Your task to perform on an android device: Open eBay Image 0: 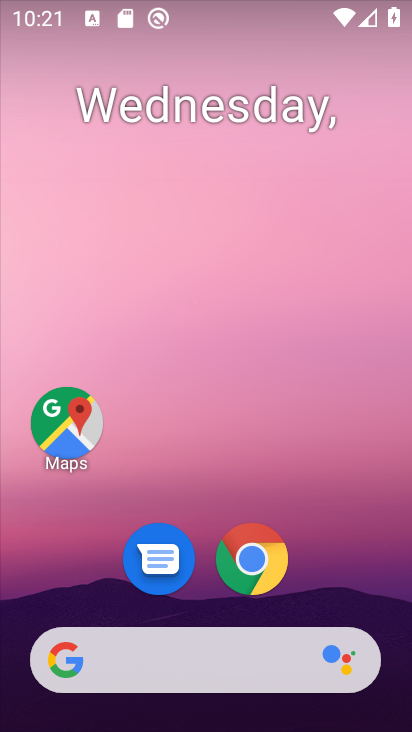
Step 0: drag from (200, 664) to (303, 42)
Your task to perform on an android device: Open eBay Image 1: 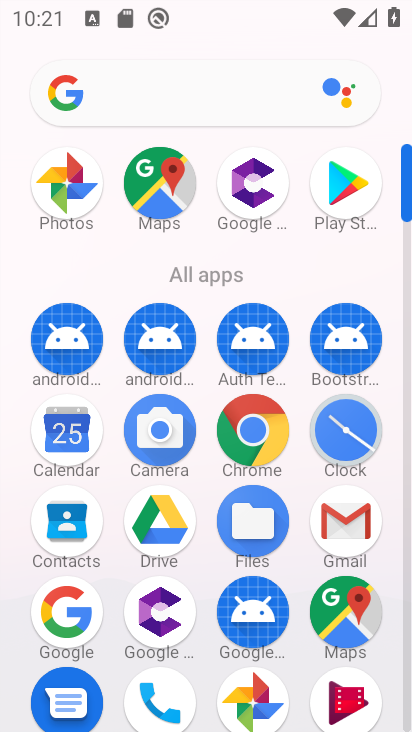
Step 1: click (259, 450)
Your task to perform on an android device: Open eBay Image 2: 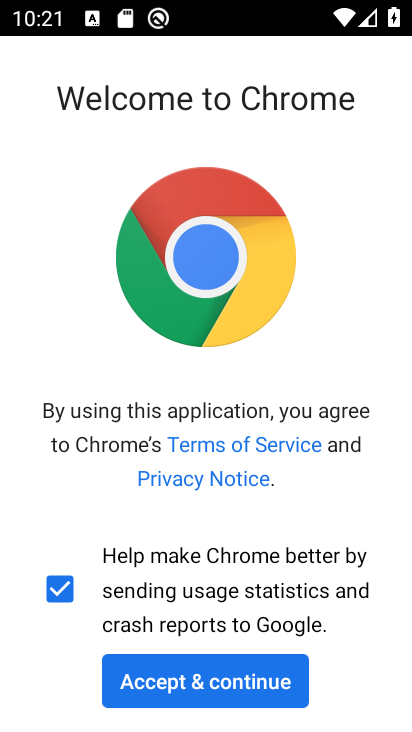
Step 2: click (248, 686)
Your task to perform on an android device: Open eBay Image 3: 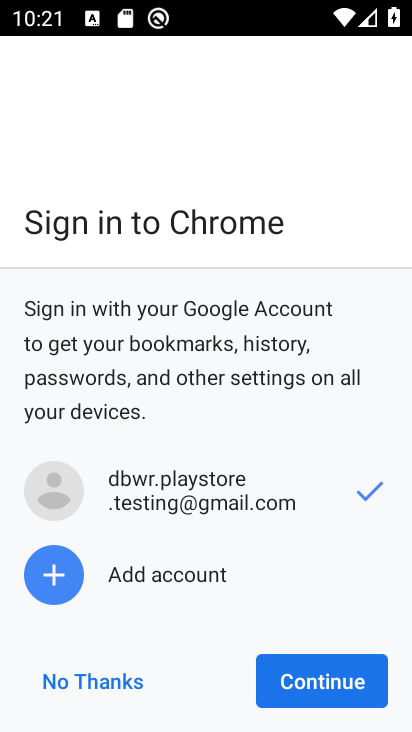
Step 3: click (330, 682)
Your task to perform on an android device: Open eBay Image 4: 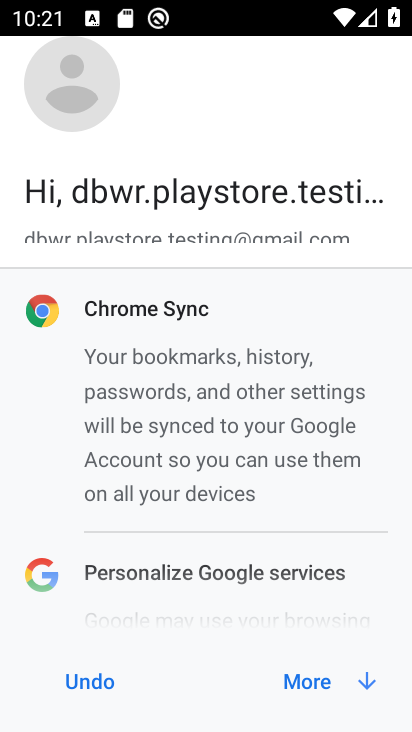
Step 4: click (332, 685)
Your task to perform on an android device: Open eBay Image 5: 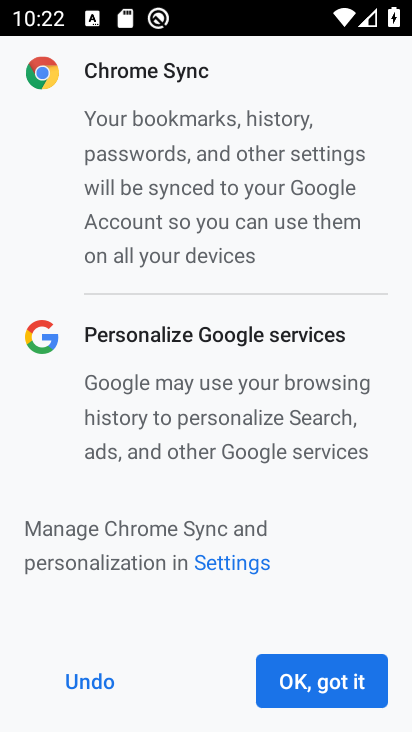
Step 5: click (332, 682)
Your task to perform on an android device: Open eBay Image 6: 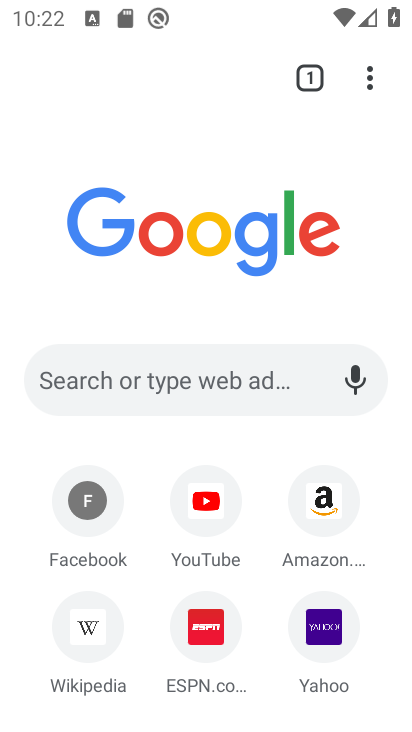
Step 6: click (238, 376)
Your task to perform on an android device: Open eBay Image 7: 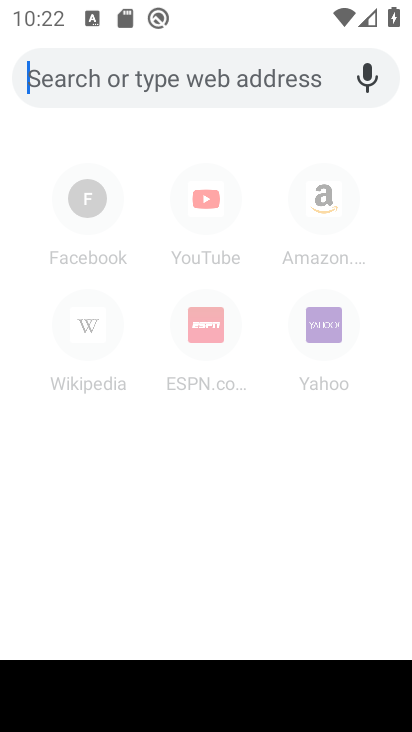
Step 7: type "ebay"
Your task to perform on an android device: Open eBay Image 8: 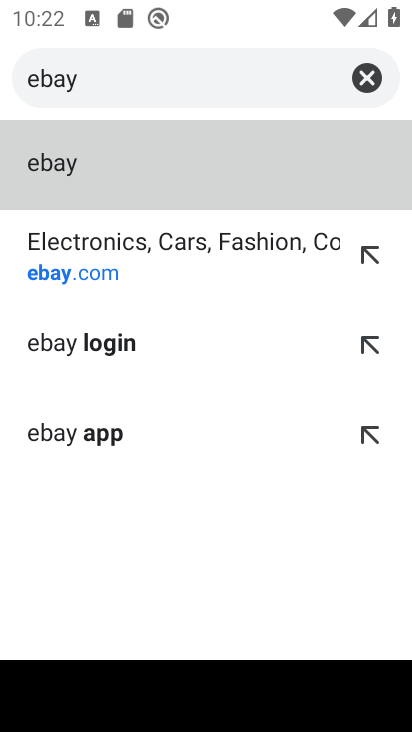
Step 8: click (137, 265)
Your task to perform on an android device: Open eBay Image 9: 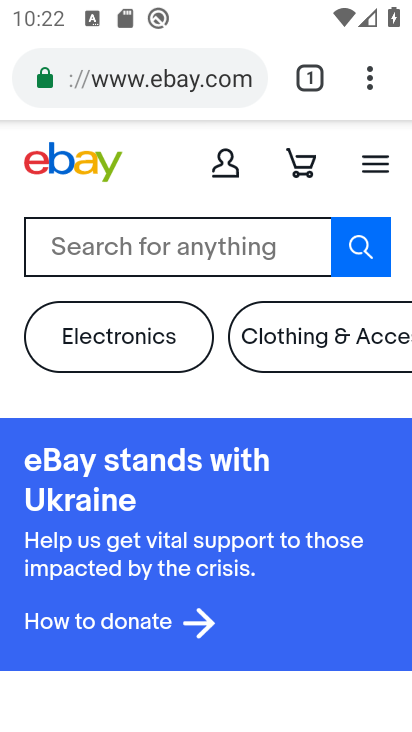
Step 9: task complete